Your task to perform on an android device: Open calendar and show me the second week of next month Image 0: 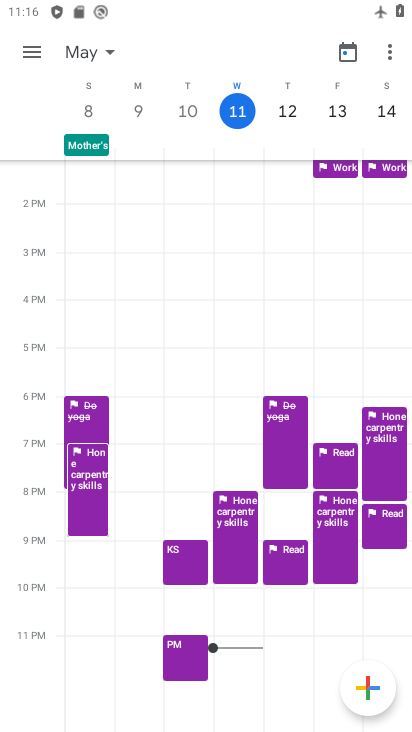
Step 0: click (89, 48)
Your task to perform on an android device: Open calendar and show me the second week of next month Image 1: 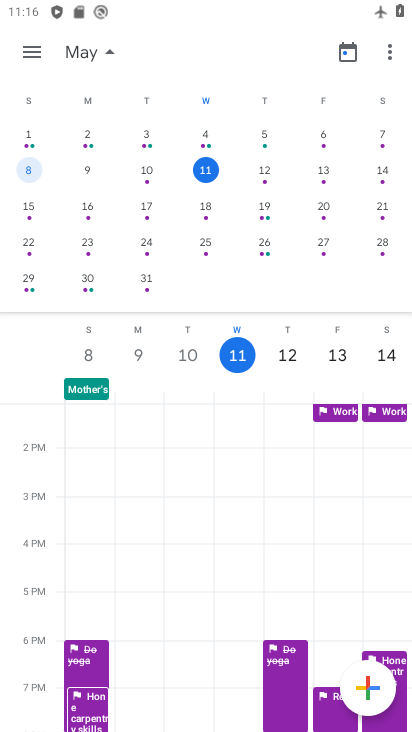
Step 1: click (82, 53)
Your task to perform on an android device: Open calendar and show me the second week of next month Image 2: 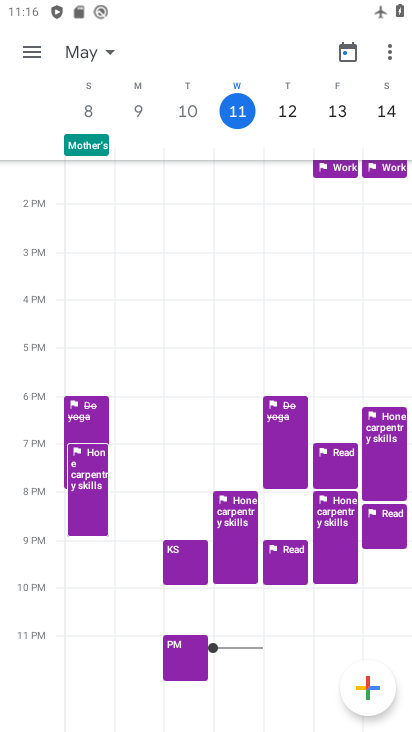
Step 2: click (82, 57)
Your task to perform on an android device: Open calendar and show me the second week of next month Image 3: 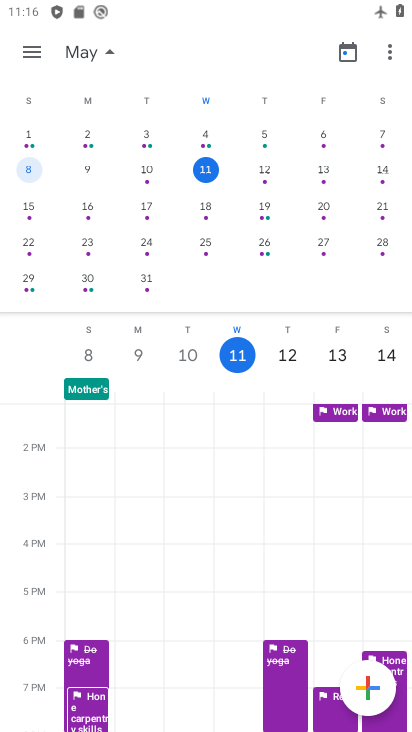
Step 3: drag from (360, 248) to (26, 218)
Your task to perform on an android device: Open calendar and show me the second week of next month Image 4: 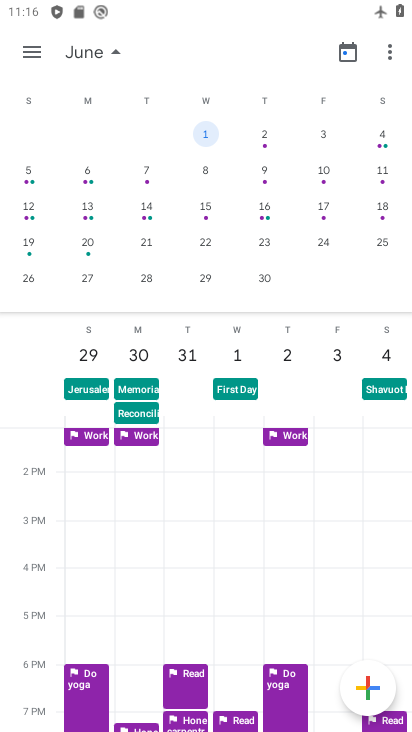
Step 4: click (35, 203)
Your task to perform on an android device: Open calendar and show me the second week of next month Image 5: 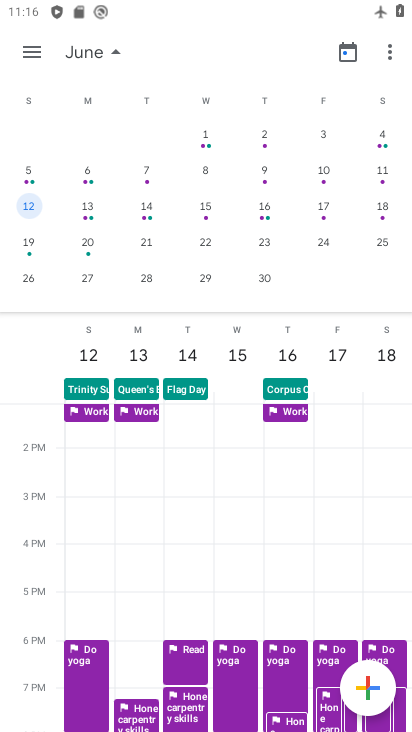
Step 5: task complete